Your task to perform on an android device: Is it going to rain tomorrow? Image 0: 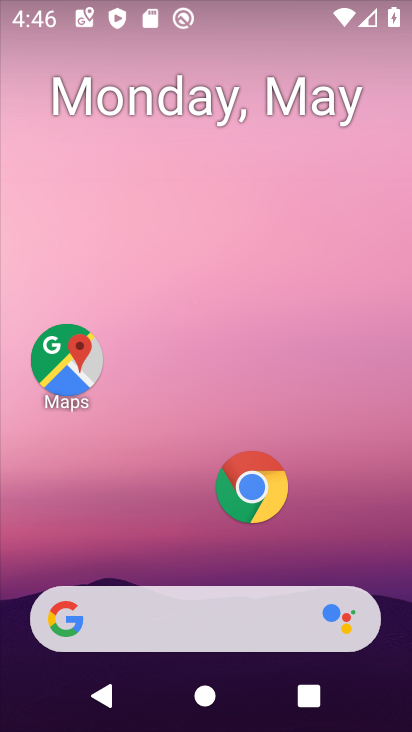
Step 0: click (155, 637)
Your task to perform on an android device: Is it going to rain tomorrow? Image 1: 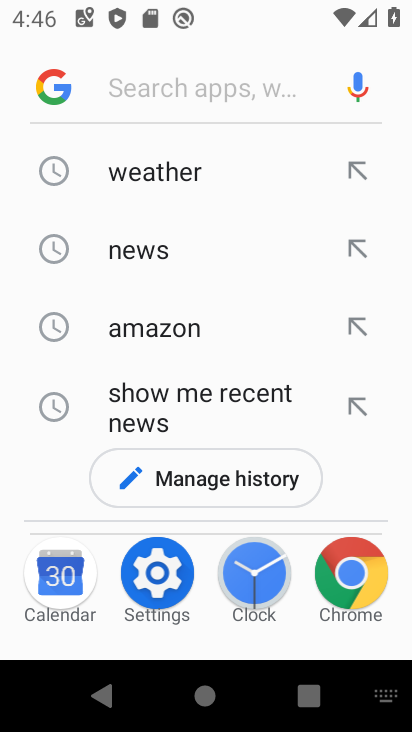
Step 1: click (184, 176)
Your task to perform on an android device: Is it going to rain tomorrow? Image 2: 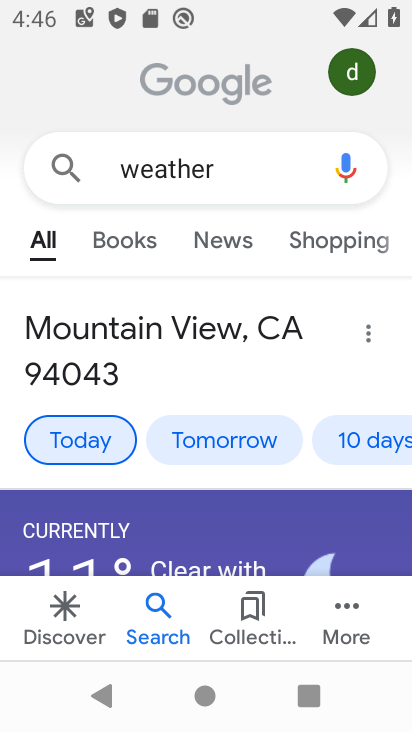
Step 2: click (218, 442)
Your task to perform on an android device: Is it going to rain tomorrow? Image 3: 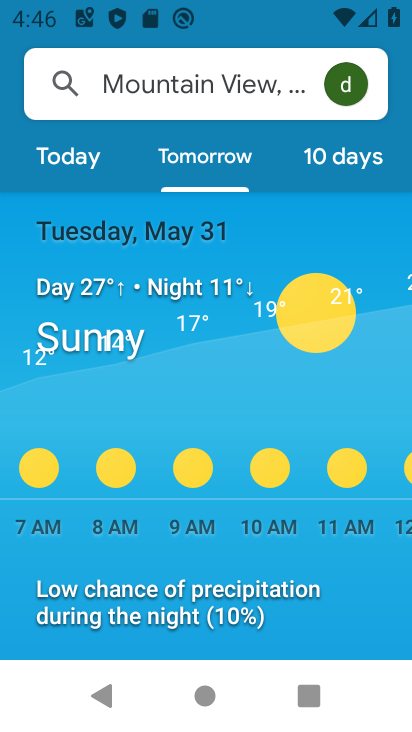
Step 3: task complete